Your task to perform on an android device: check google app version Image 0: 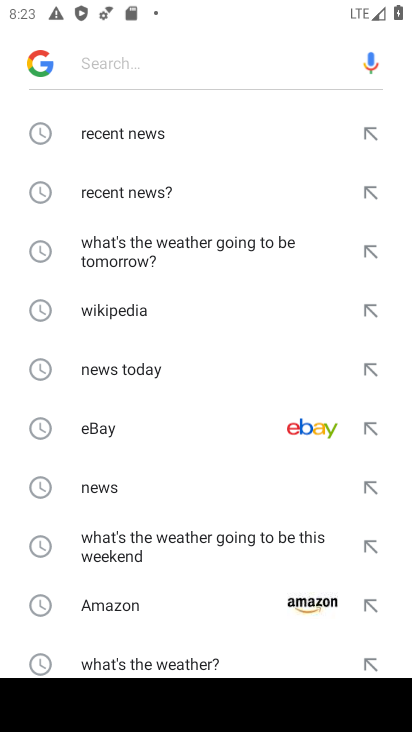
Step 0: press home button
Your task to perform on an android device: check google app version Image 1: 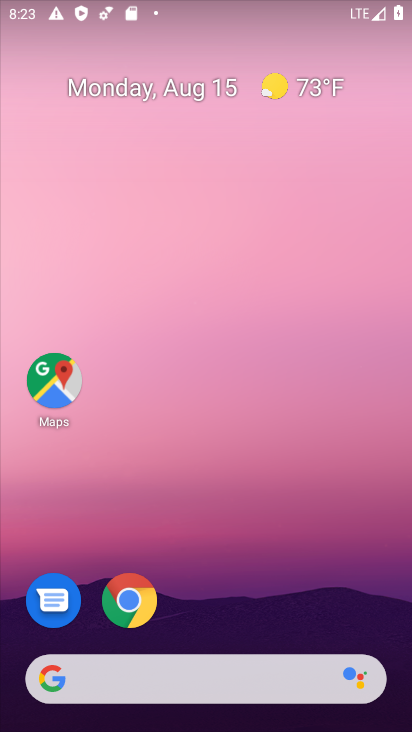
Step 1: drag from (233, 640) to (189, 133)
Your task to perform on an android device: check google app version Image 2: 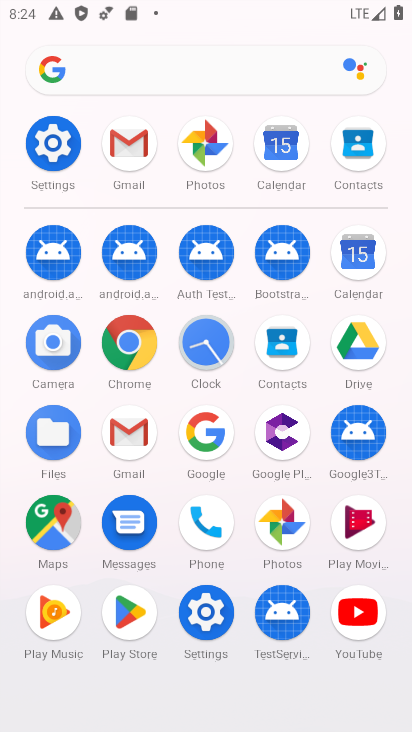
Step 2: click (212, 426)
Your task to perform on an android device: check google app version Image 3: 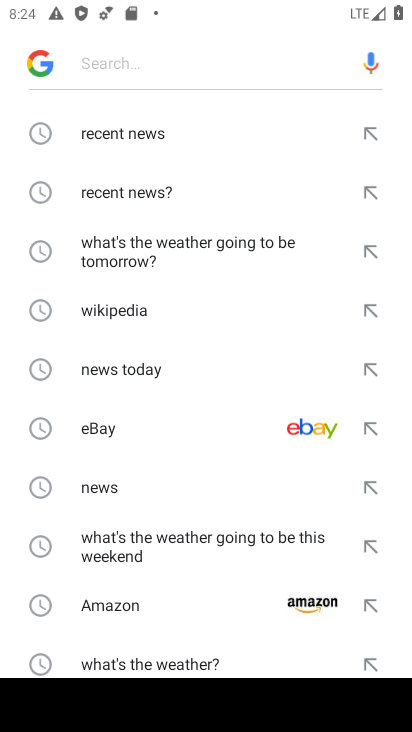
Step 3: click (35, 65)
Your task to perform on an android device: check google app version Image 4: 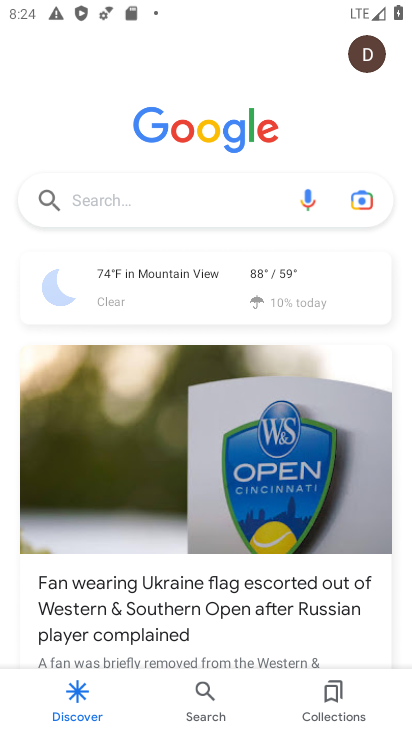
Step 4: click (366, 60)
Your task to perform on an android device: check google app version Image 5: 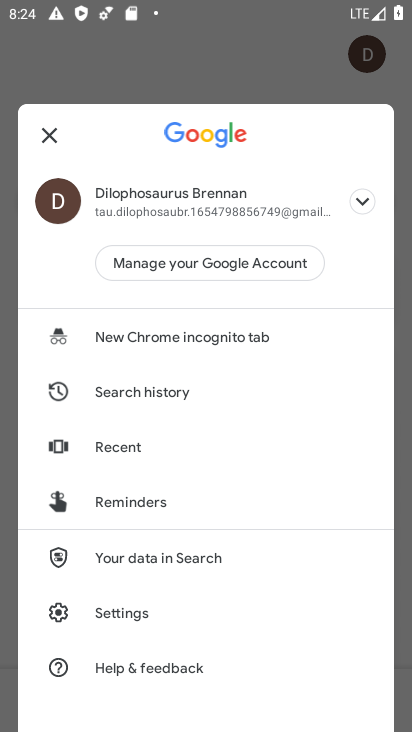
Step 5: click (128, 612)
Your task to perform on an android device: check google app version Image 6: 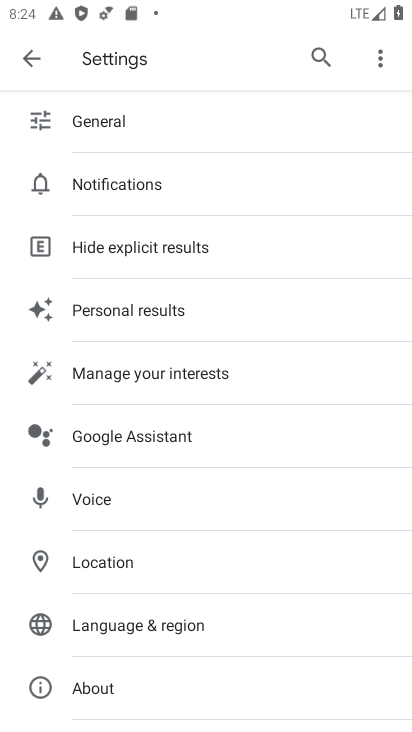
Step 6: click (97, 683)
Your task to perform on an android device: check google app version Image 7: 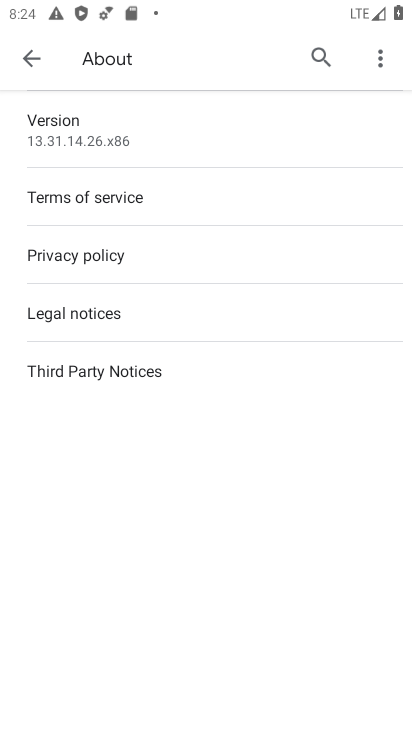
Step 7: click (76, 133)
Your task to perform on an android device: check google app version Image 8: 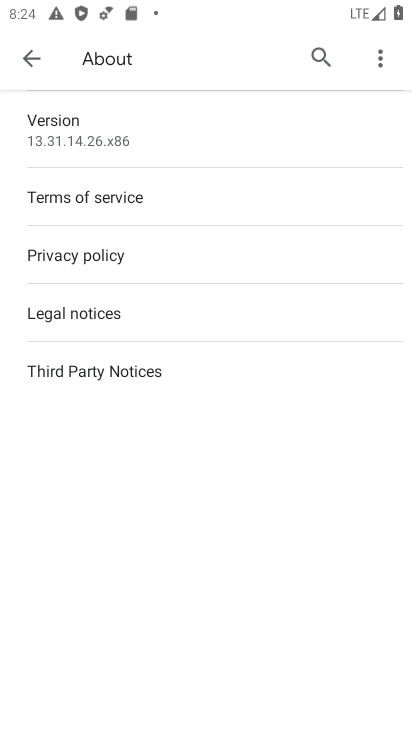
Step 8: click (80, 143)
Your task to perform on an android device: check google app version Image 9: 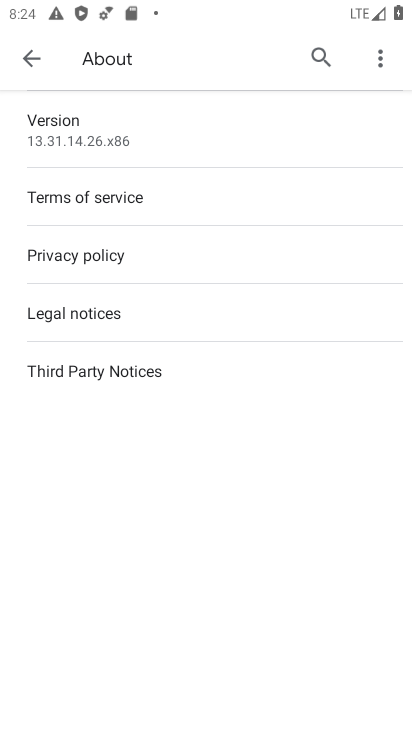
Step 9: task complete